Your task to perform on an android device: Open network settings Image 0: 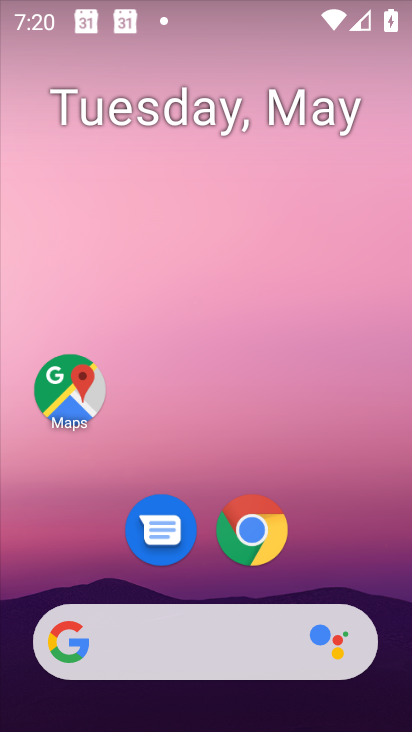
Step 0: drag from (134, 731) to (153, 67)
Your task to perform on an android device: Open network settings Image 1: 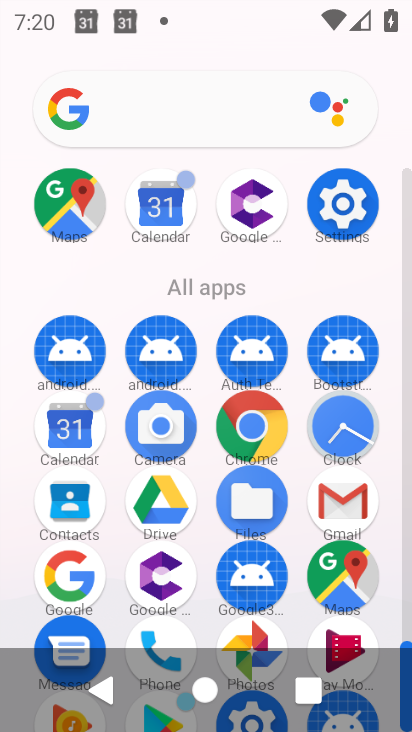
Step 1: click (338, 209)
Your task to perform on an android device: Open network settings Image 2: 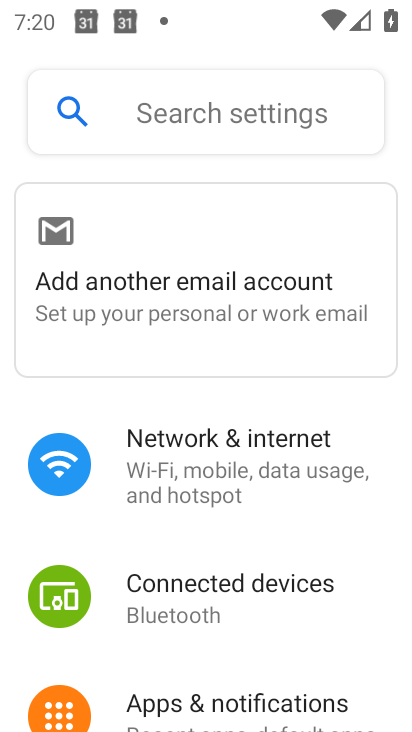
Step 2: click (272, 491)
Your task to perform on an android device: Open network settings Image 3: 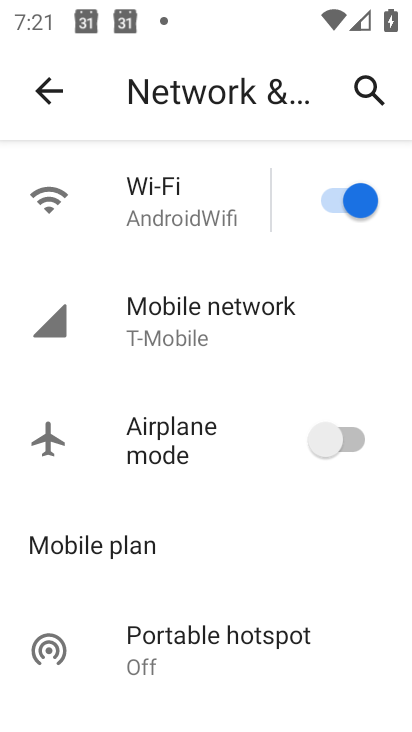
Step 3: click (219, 347)
Your task to perform on an android device: Open network settings Image 4: 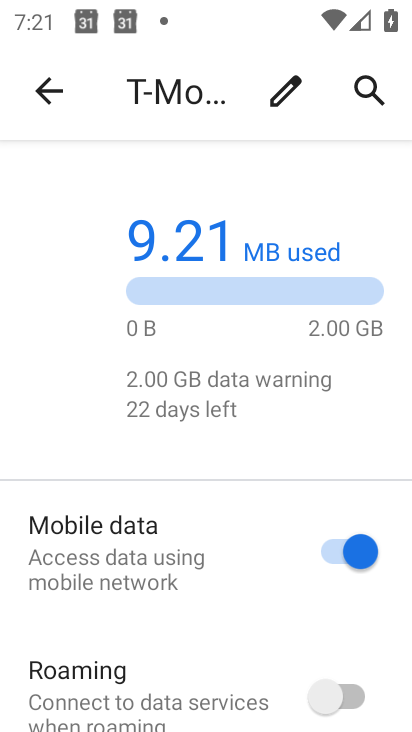
Step 4: drag from (252, 665) to (218, 323)
Your task to perform on an android device: Open network settings Image 5: 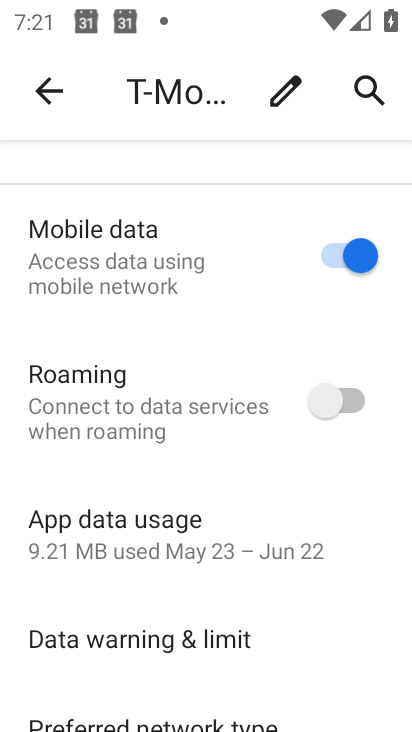
Step 5: drag from (193, 689) to (202, 323)
Your task to perform on an android device: Open network settings Image 6: 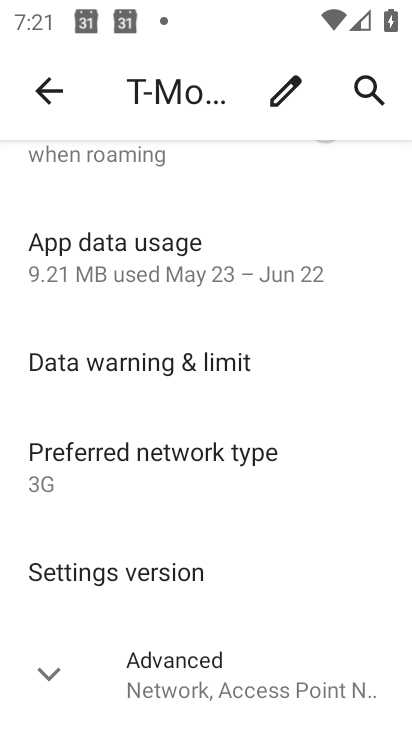
Step 6: click (152, 688)
Your task to perform on an android device: Open network settings Image 7: 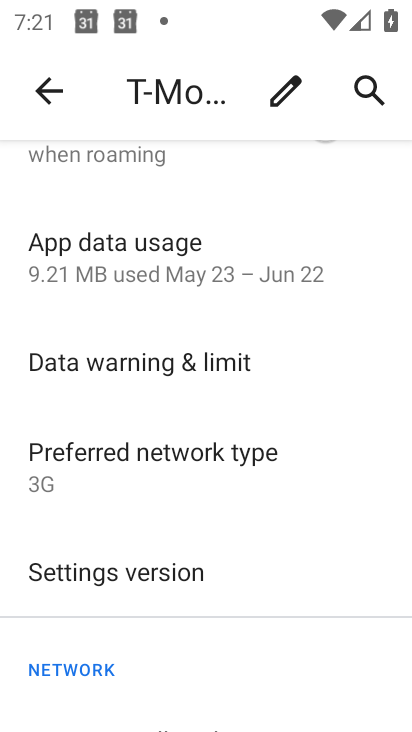
Step 7: task complete